Your task to perform on an android device: open a new tab in the chrome app Image 0: 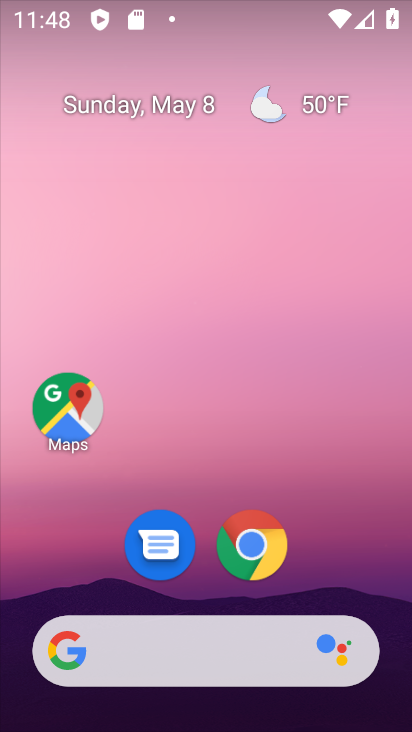
Step 0: click (235, 555)
Your task to perform on an android device: open a new tab in the chrome app Image 1: 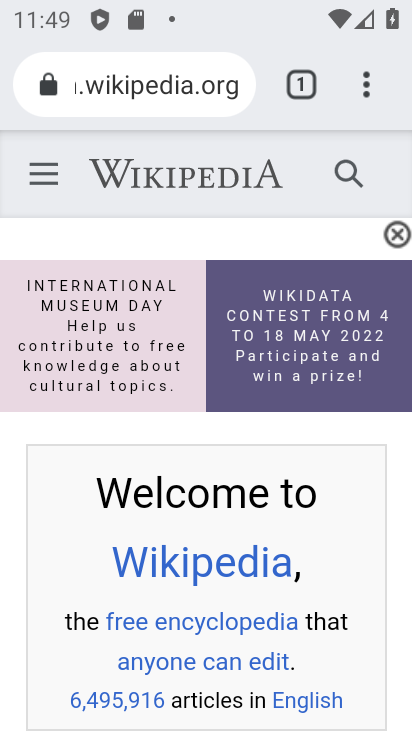
Step 1: click (283, 95)
Your task to perform on an android device: open a new tab in the chrome app Image 2: 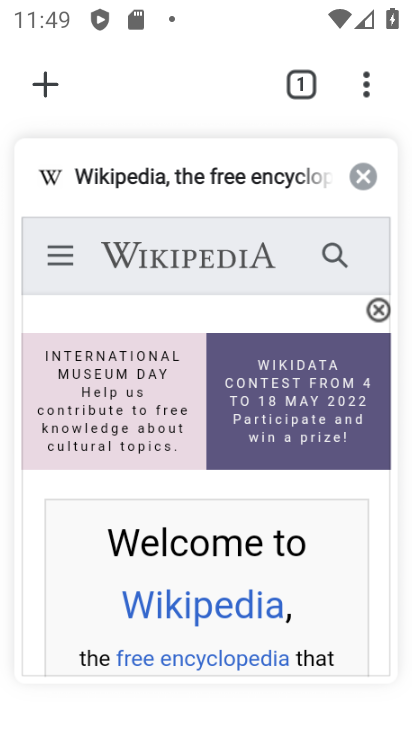
Step 2: click (47, 78)
Your task to perform on an android device: open a new tab in the chrome app Image 3: 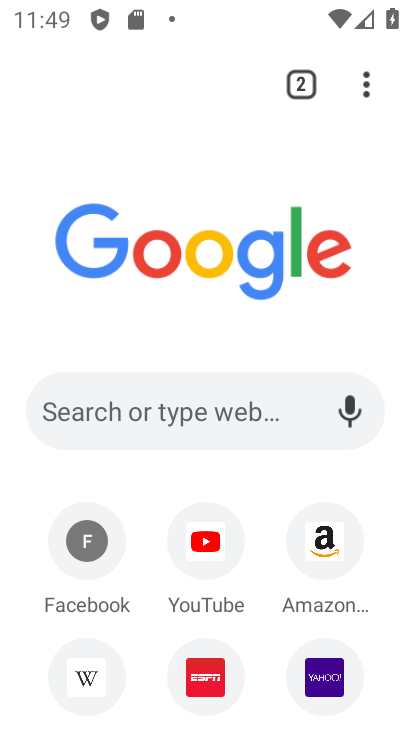
Step 3: task complete